Your task to perform on an android device: Open Youtube and go to "Your channel" Image 0: 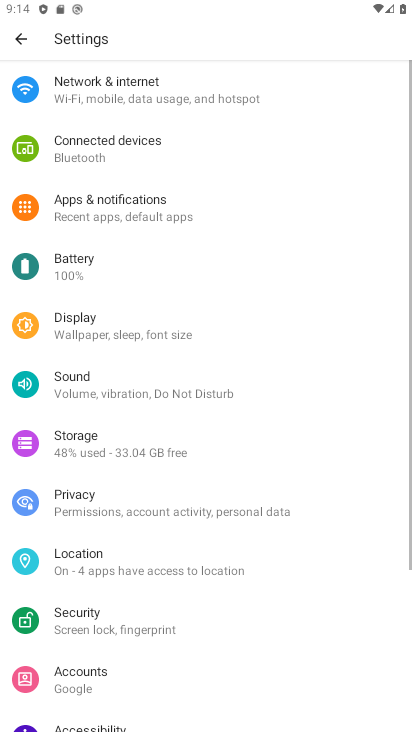
Step 0: press home button
Your task to perform on an android device: Open Youtube and go to "Your channel" Image 1: 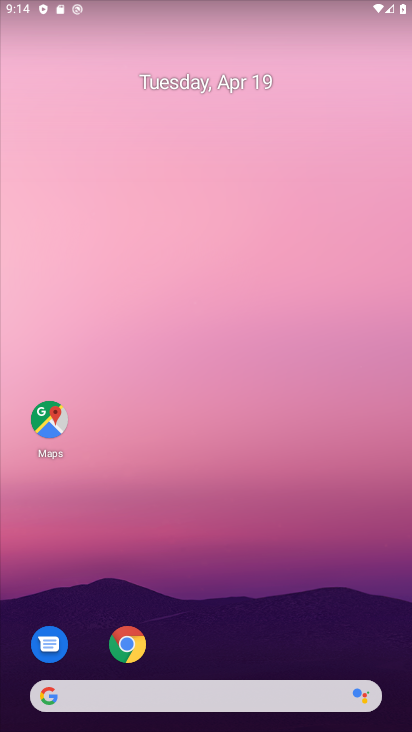
Step 1: drag from (303, 601) to (255, 25)
Your task to perform on an android device: Open Youtube and go to "Your channel" Image 2: 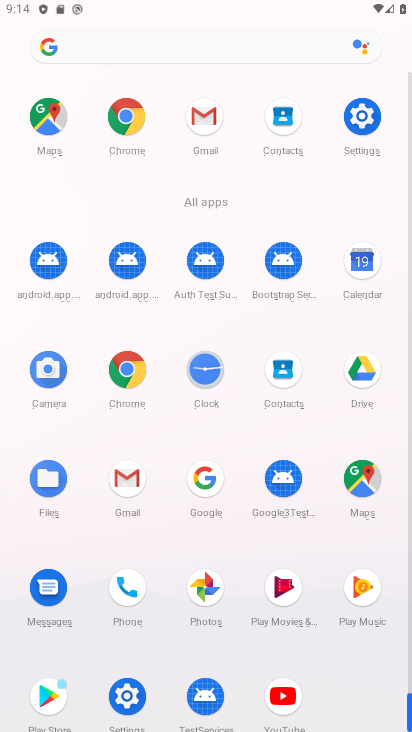
Step 2: click (282, 687)
Your task to perform on an android device: Open Youtube and go to "Your channel" Image 3: 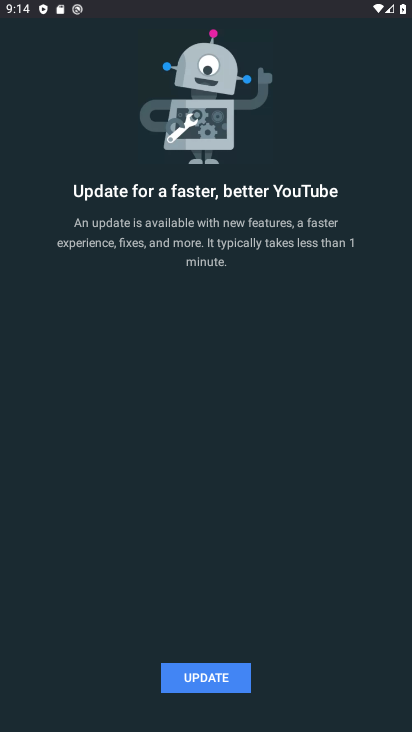
Step 3: click (222, 671)
Your task to perform on an android device: Open Youtube and go to "Your channel" Image 4: 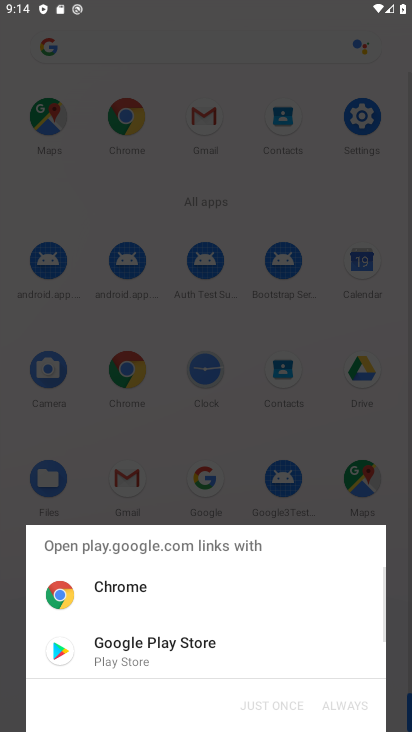
Step 4: click (170, 639)
Your task to perform on an android device: Open Youtube and go to "Your channel" Image 5: 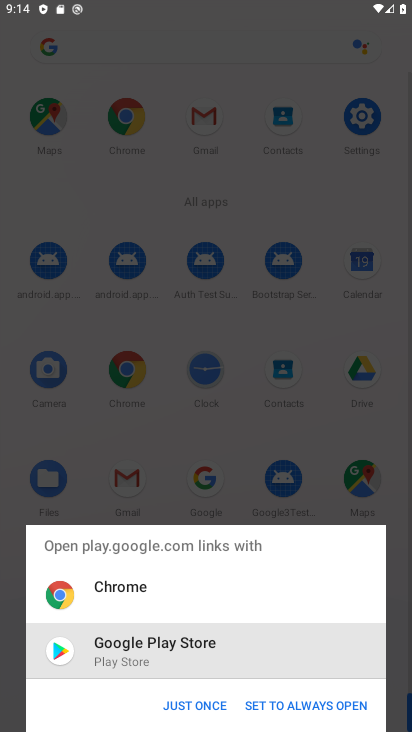
Step 5: click (181, 698)
Your task to perform on an android device: Open Youtube and go to "Your channel" Image 6: 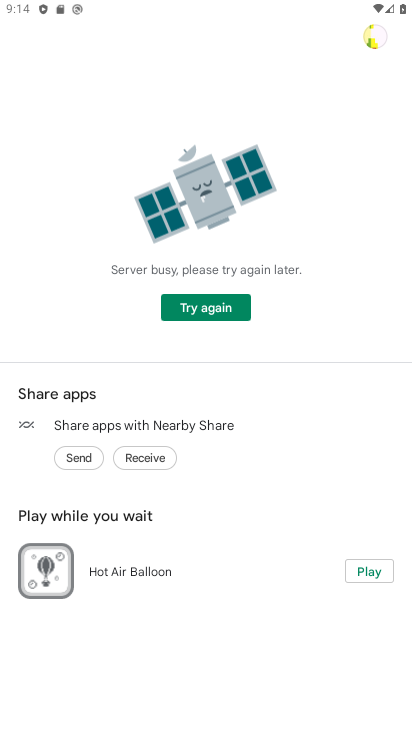
Step 6: click (192, 302)
Your task to perform on an android device: Open Youtube and go to "Your channel" Image 7: 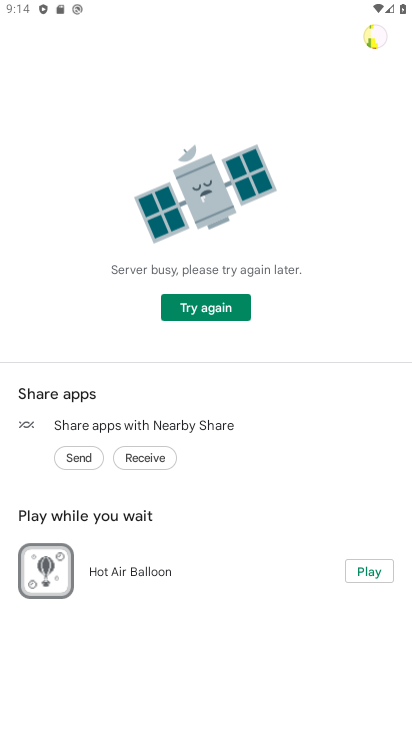
Step 7: task complete